Your task to perform on an android device: open app "Clock" Image 0: 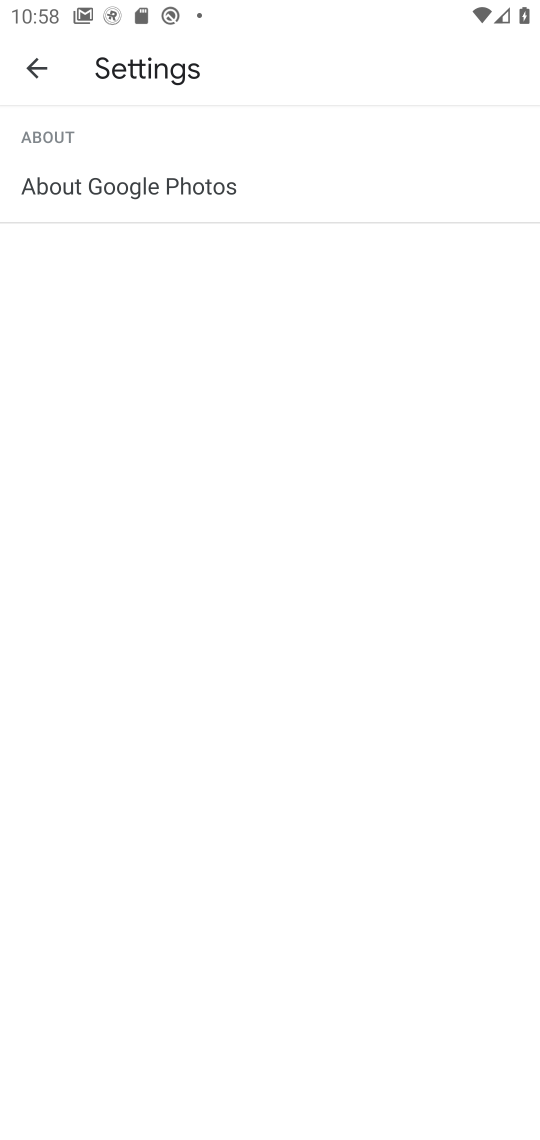
Step 0: press home button
Your task to perform on an android device: open app "Clock" Image 1: 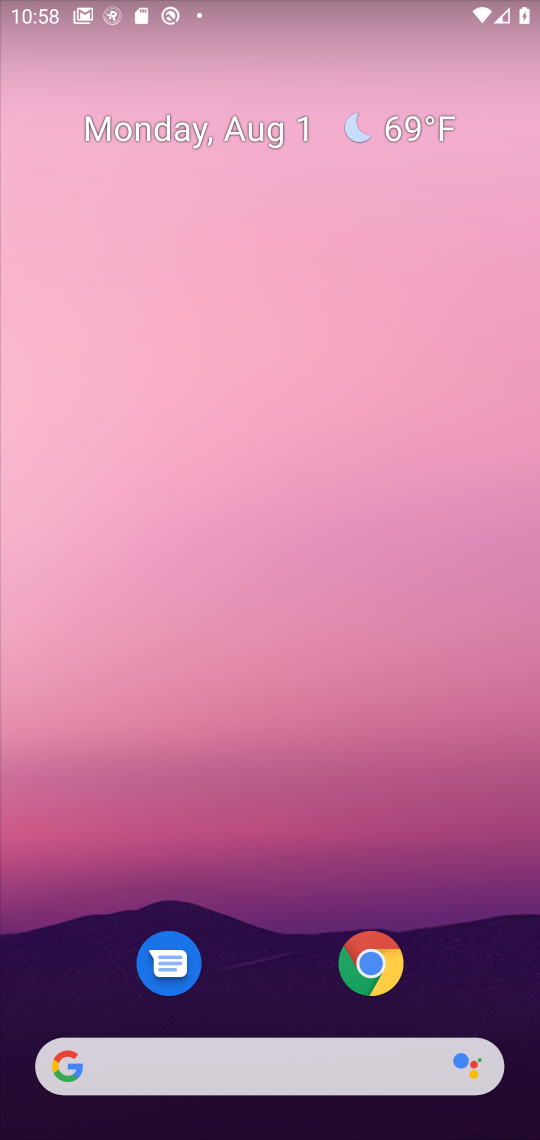
Step 1: drag from (282, 933) to (310, 304)
Your task to perform on an android device: open app "Clock" Image 2: 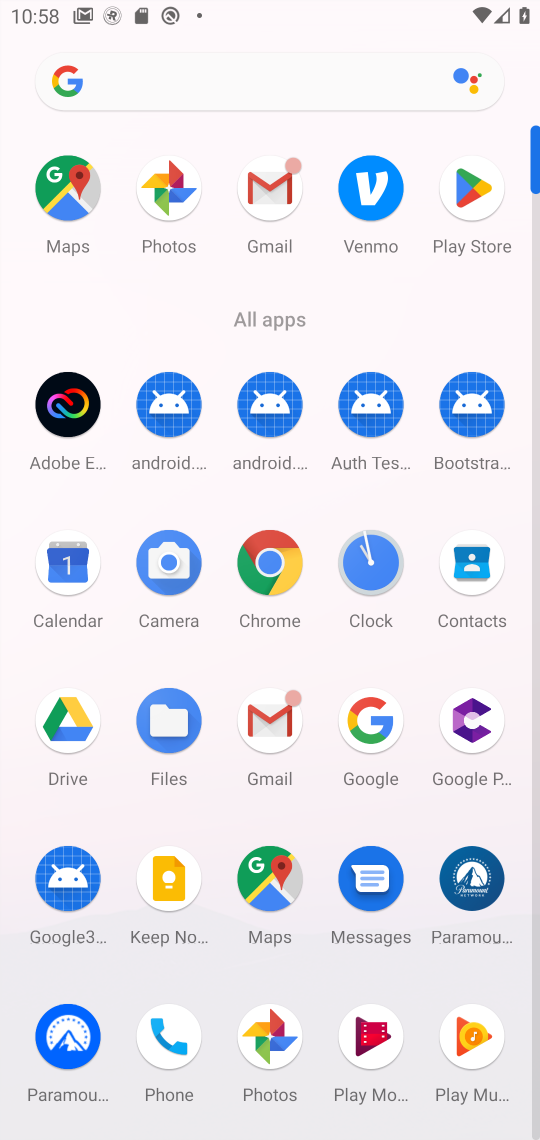
Step 2: click (379, 580)
Your task to perform on an android device: open app "Clock" Image 3: 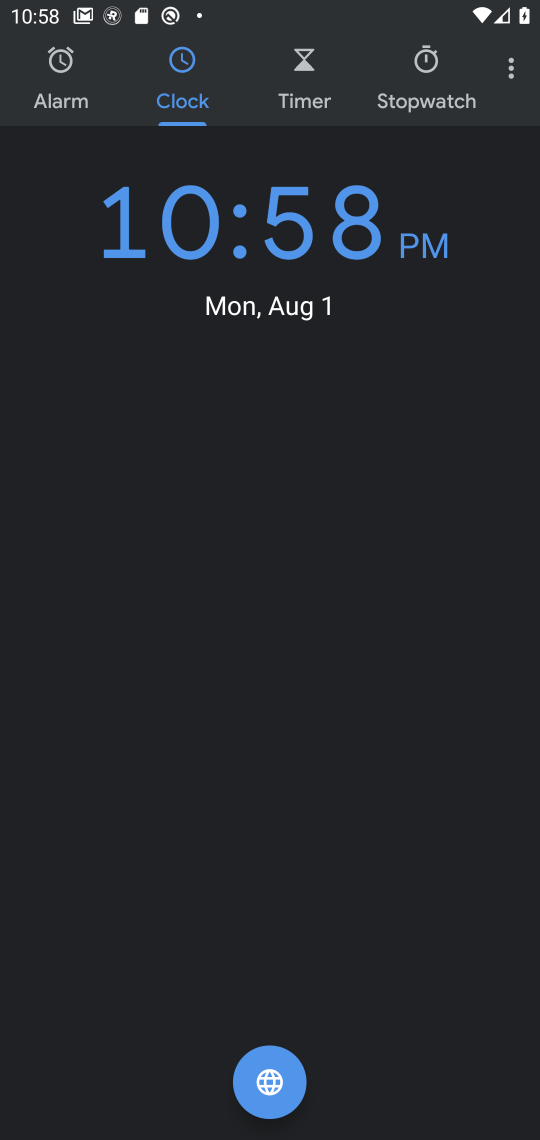
Step 3: task complete